Your task to perform on an android device: toggle pop-ups in chrome Image 0: 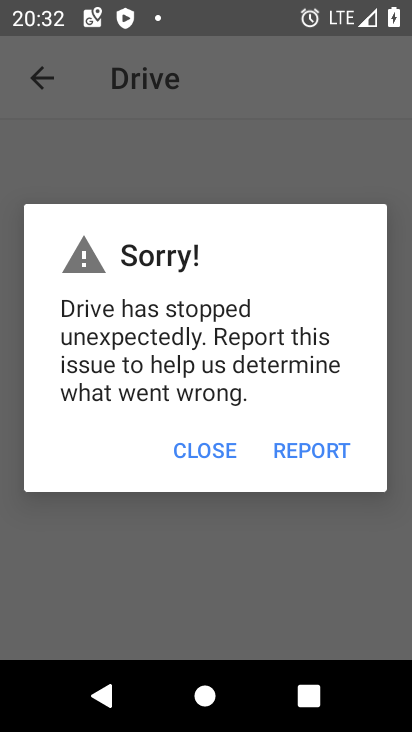
Step 0: press home button
Your task to perform on an android device: toggle pop-ups in chrome Image 1: 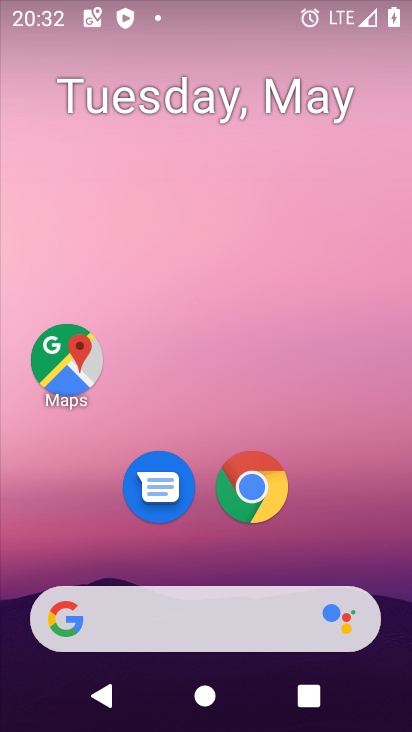
Step 1: click (252, 486)
Your task to perform on an android device: toggle pop-ups in chrome Image 2: 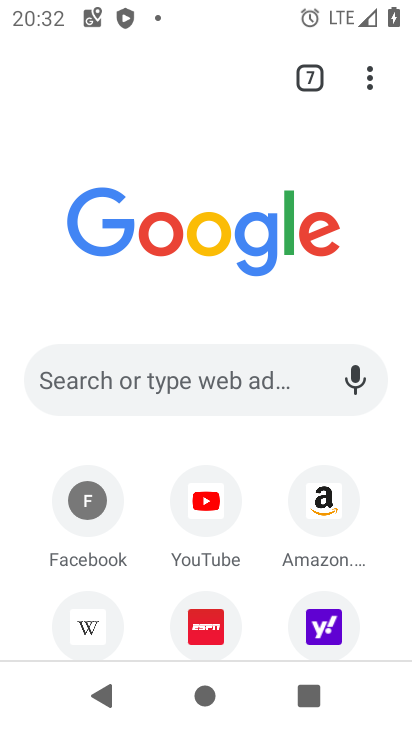
Step 2: click (369, 75)
Your task to perform on an android device: toggle pop-ups in chrome Image 3: 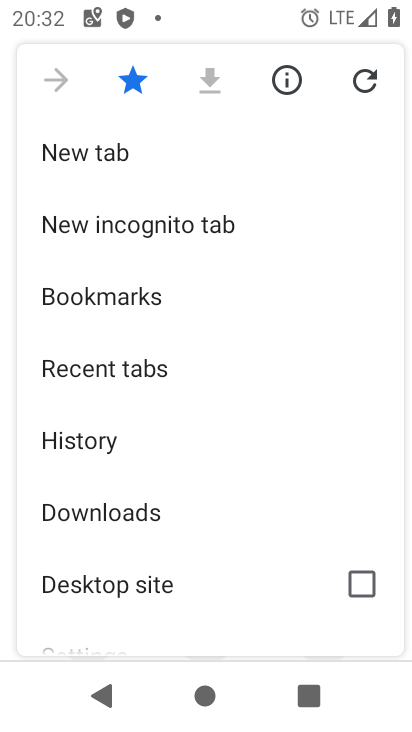
Step 3: drag from (208, 488) to (159, 181)
Your task to perform on an android device: toggle pop-ups in chrome Image 4: 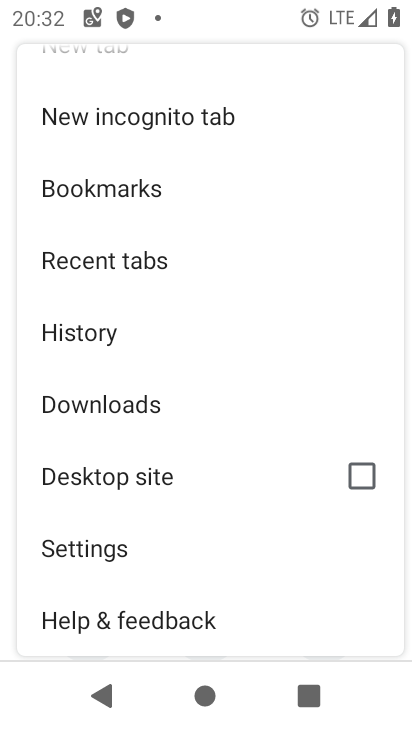
Step 4: click (82, 541)
Your task to perform on an android device: toggle pop-ups in chrome Image 5: 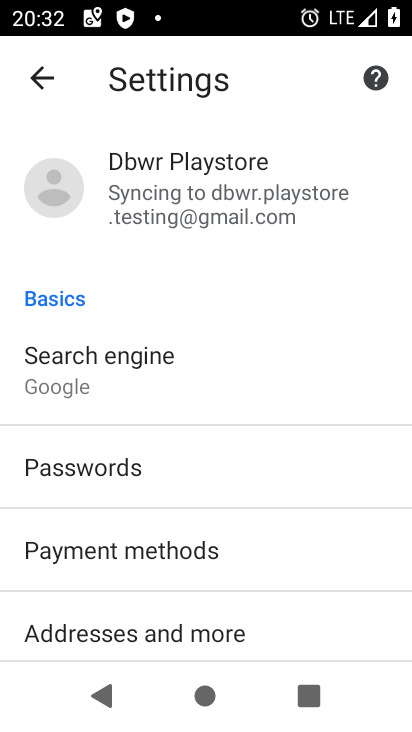
Step 5: drag from (274, 544) to (245, 213)
Your task to perform on an android device: toggle pop-ups in chrome Image 6: 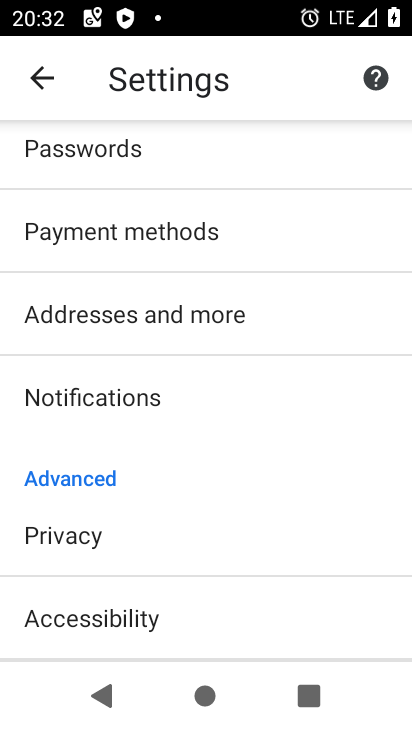
Step 6: drag from (204, 457) to (191, 168)
Your task to perform on an android device: toggle pop-ups in chrome Image 7: 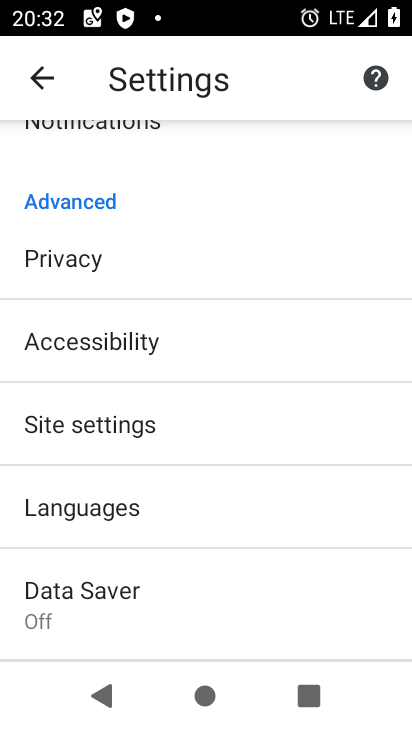
Step 7: click (85, 420)
Your task to perform on an android device: toggle pop-ups in chrome Image 8: 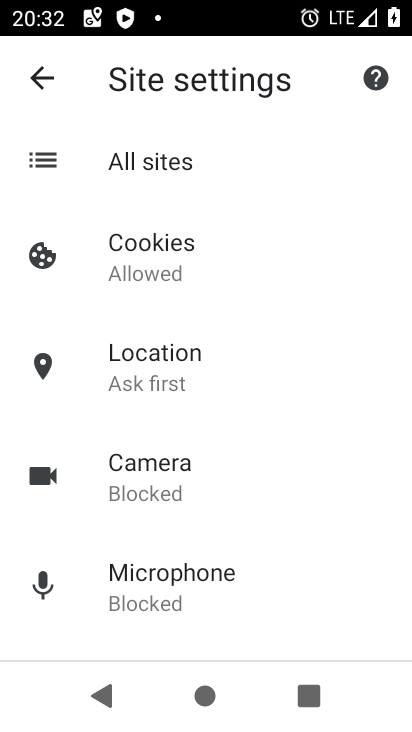
Step 8: drag from (214, 498) to (214, 192)
Your task to perform on an android device: toggle pop-ups in chrome Image 9: 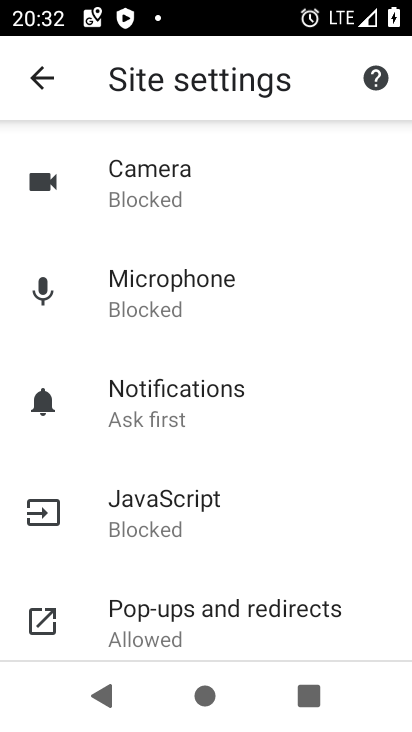
Step 9: click (171, 604)
Your task to perform on an android device: toggle pop-ups in chrome Image 10: 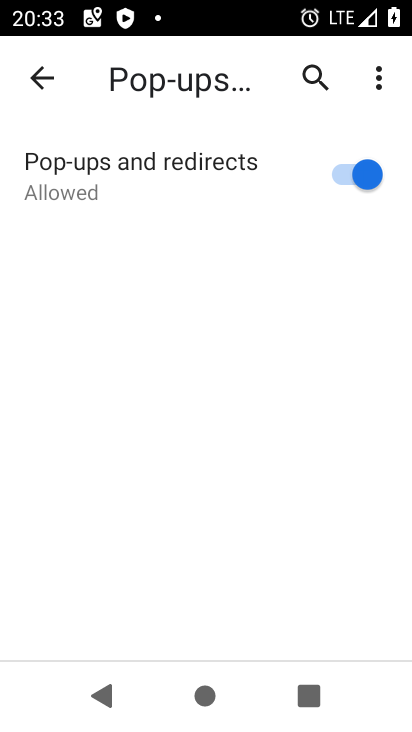
Step 10: click (358, 172)
Your task to perform on an android device: toggle pop-ups in chrome Image 11: 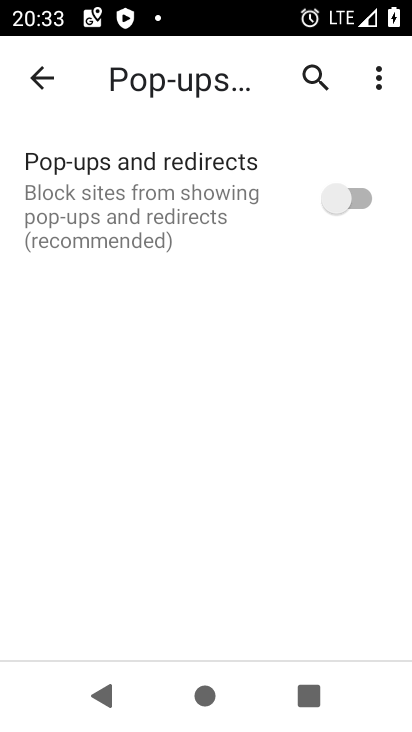
Step 11: task complete